Your task to perform on an android device: open a bookmark in the chrome app Image 0: 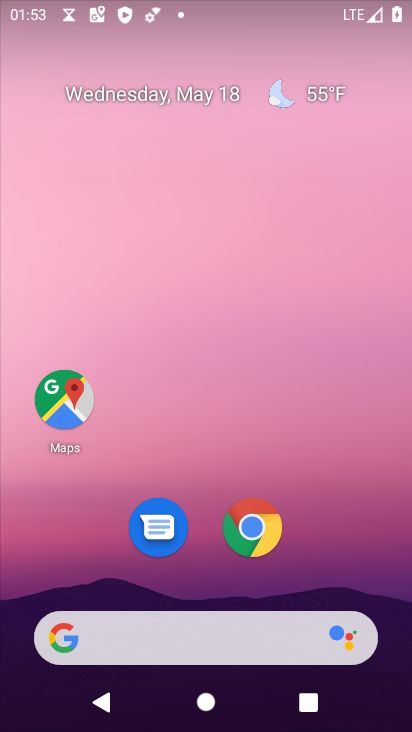
Step 0: click (262, 531)
Your task to perform on an android device: open a bookmark in the chrome app Image 1: 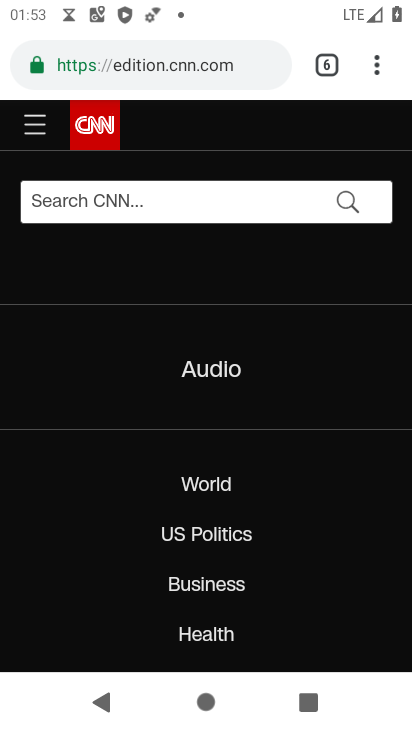
Step 1: click (365, 57)
Your task to perform on an android device: open a bookmark in the chrome app Image 2: 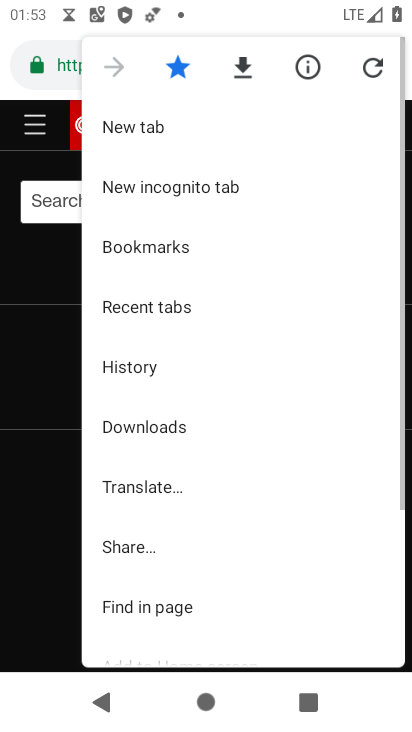
Step 2: click (203, 258)
Your task to perform on an android device: open a bookmark in the chrome app Image 3: 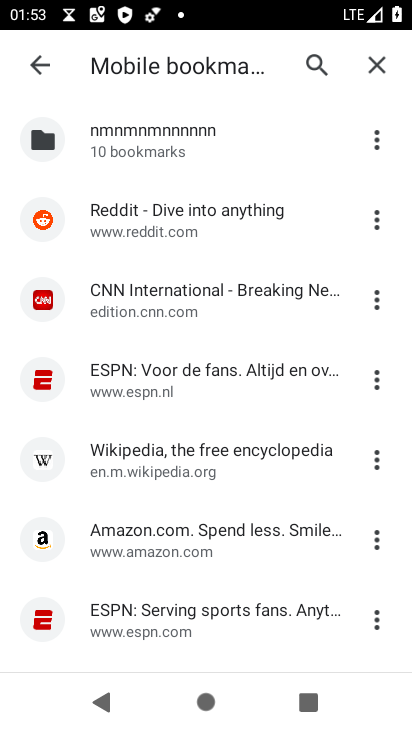
Step 3: click (257, 331)
Your task to perform on an android device: open a bookmark in the chrome app Image 4: 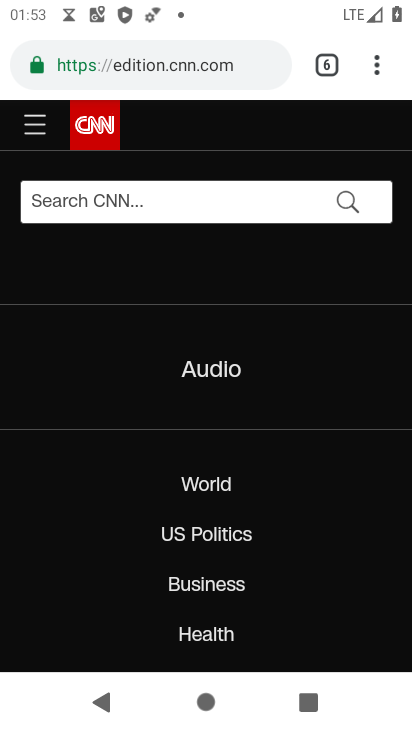
Step 4: task complete